Your task to perform on an android device: turn off data saver in the chrome app Image 0: 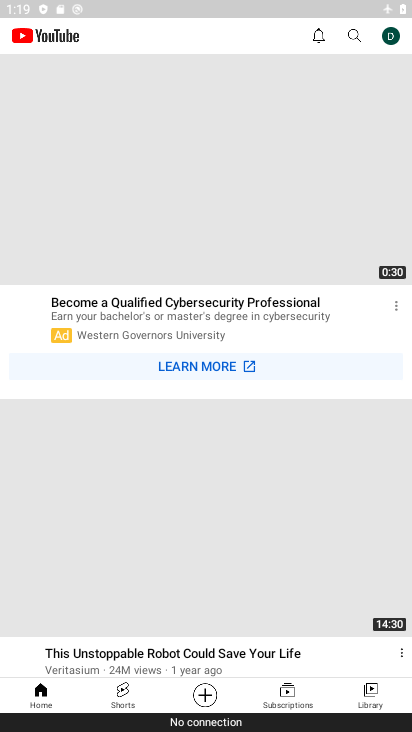
Step 0: press home button
Your task to perform on an android device: turn off data saver in the chrome app Image 1: 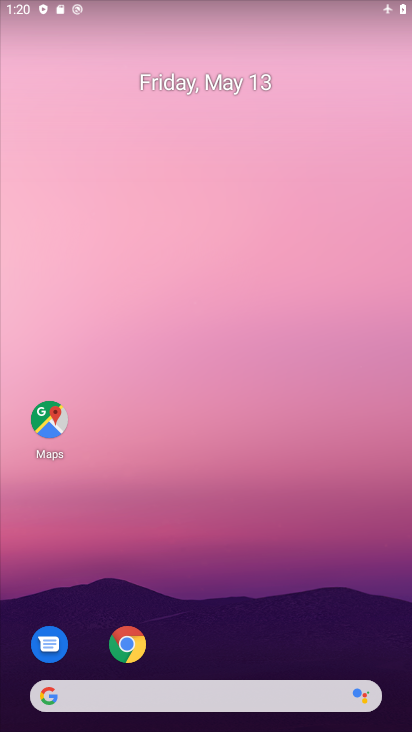
Step 1: click (130, 638)
Your task to perform on an android device: turn off data saver in the chrome app Image 2: 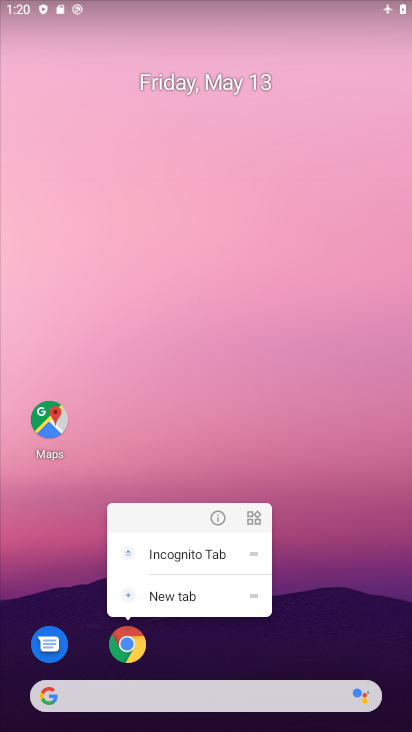
Step 2: click (125, 643)
Your task to perform on an android device: turn off data saver in the chrome app Image 3: 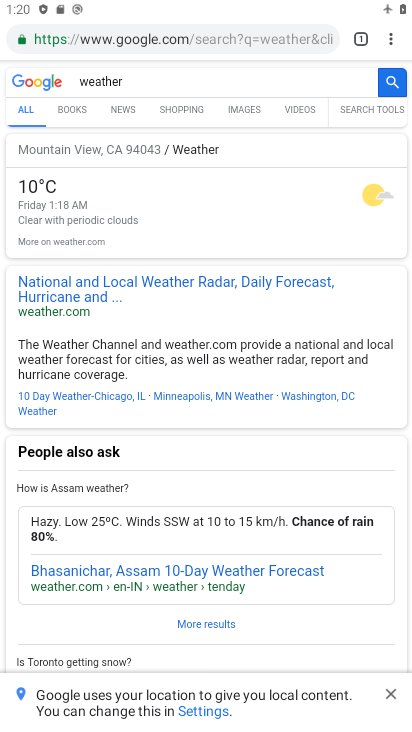
Step 3: click (393, 37)
Your task to perform on an android device: turn off data saver in the chrome app Image 4: 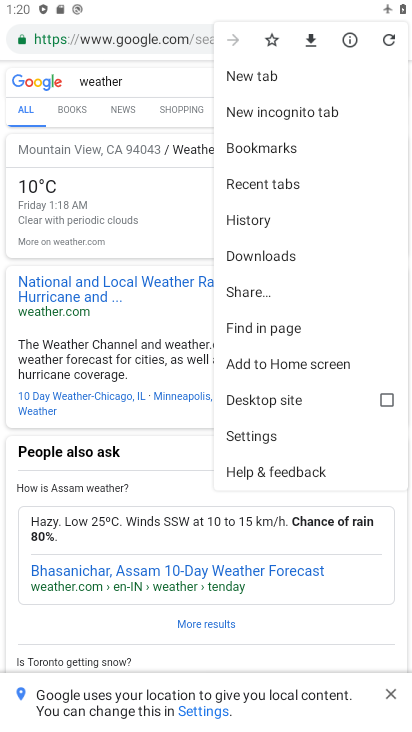
Step 4: drag from (267, 414) to (344, 132)
Your task to perform on an android device: turn off data saver in the chrome app Image 5: 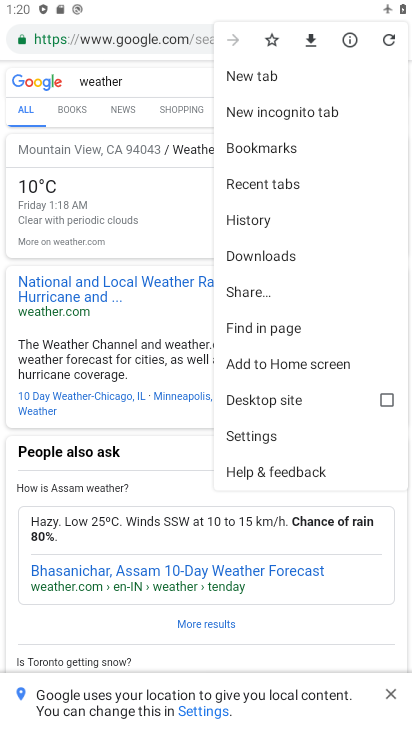
Step 5: click (260, 438)
Your task to perform on an android device: turn off data saver in the chrome app Image 6: 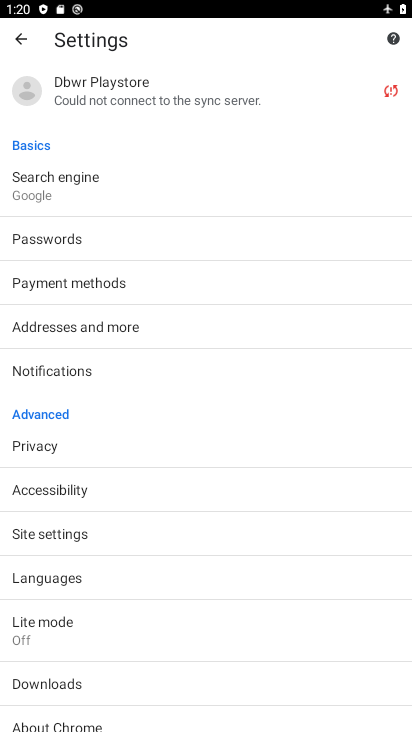
Step 6: drag from (174, 621) to (245, 310)
Your task to perform on an android device: turn off data saver in the chrome app Image 7: 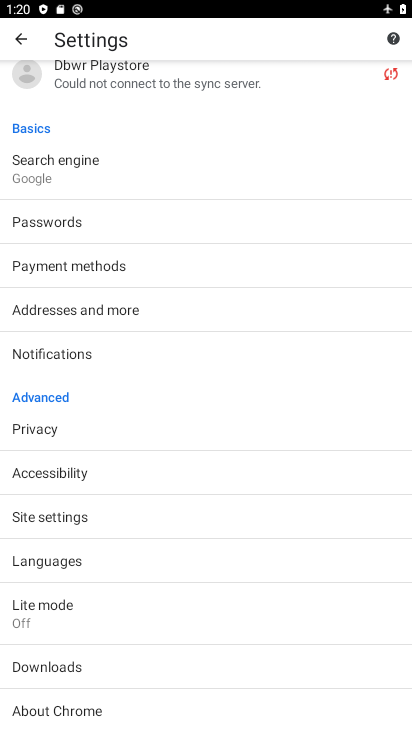
Step 7: click (65, 624)
Your task to perform on an android device: turn off data saver in the chrome app Image 8: 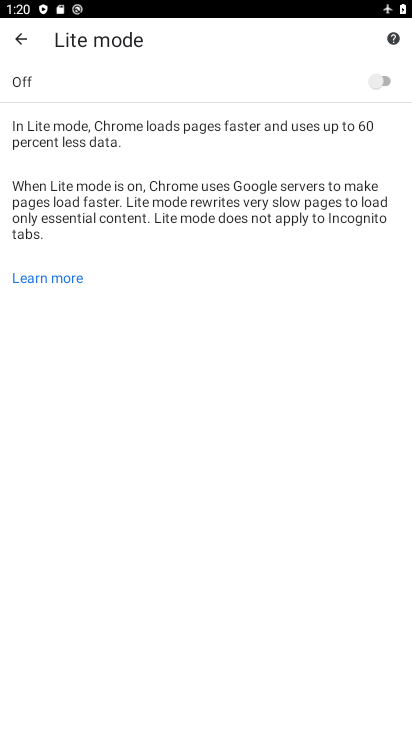
Step 8: task complete